Your task to perform on an android device: Open a new Chrome private window Image 0: 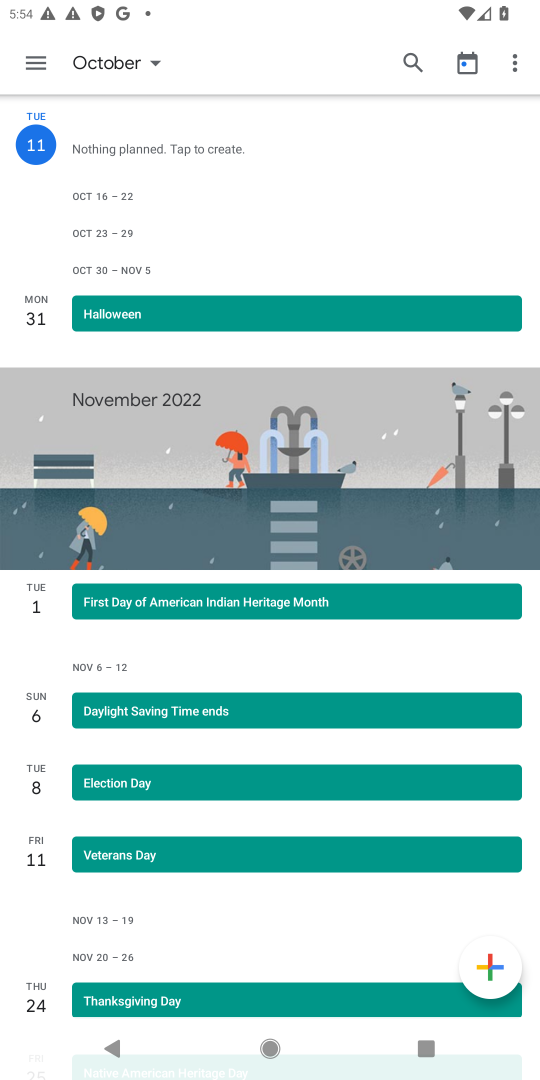
Step 0: press home button
Your task to perform on an android device: Open a new Chrome private window Image 1: 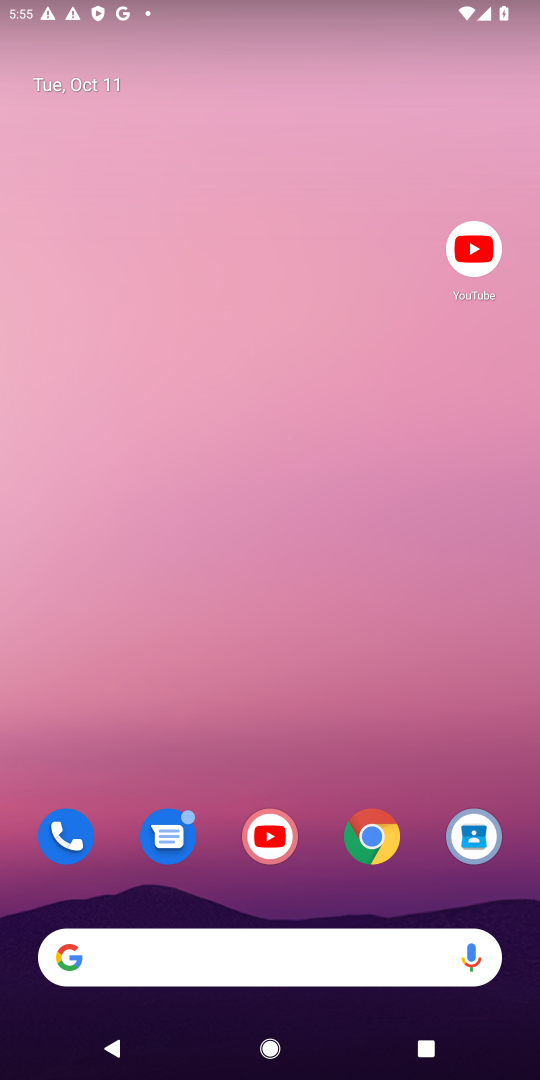
Step 1: click (378, 844)
Your task to perform on an android device: Open a new Chrome private window Image 2: 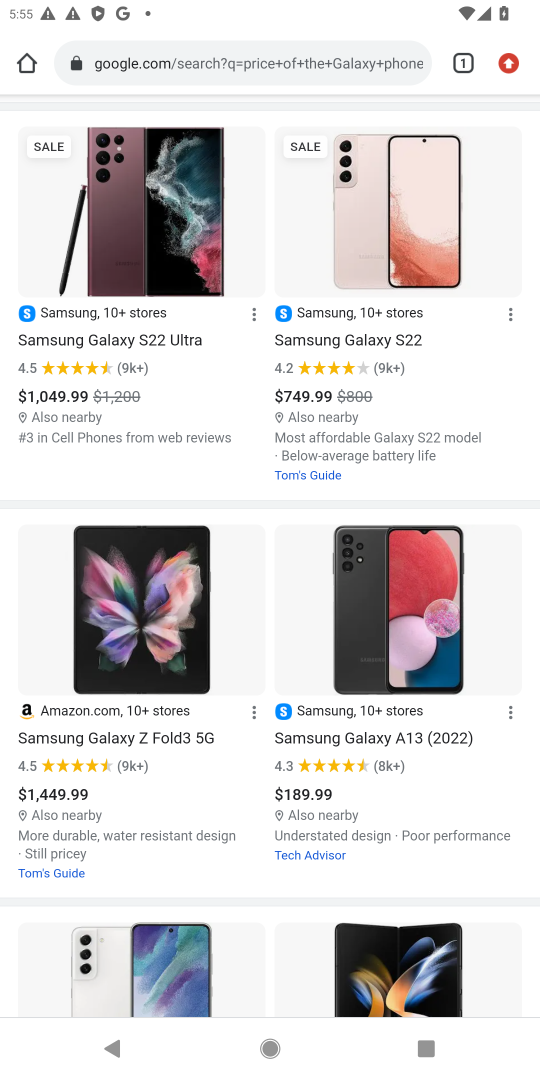
Step 2: click (472, 58)
Your task to perform on an android device: Open a new Chrome private window Image 3: 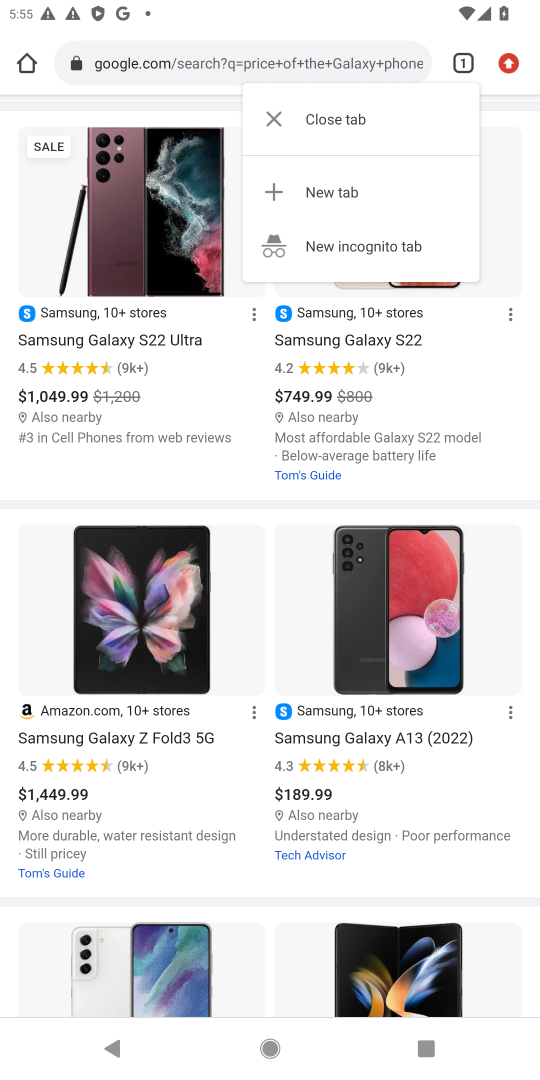
Step 3: click (510, 68)
Your task to perform on an android device: Open a new Chrome private window Image 4: 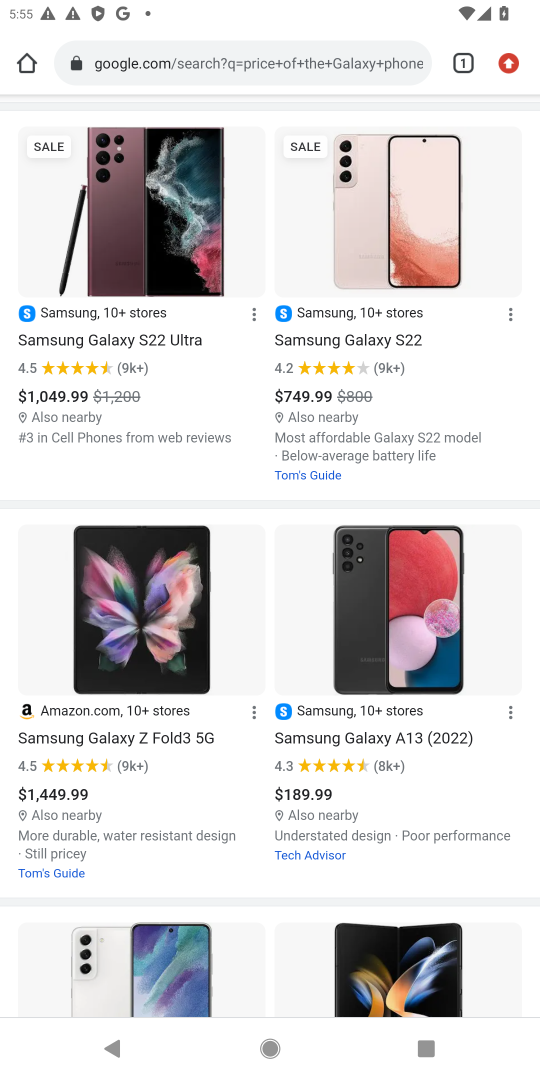
Step 4: click (510, 68)
Your task to perform on an android device: Open a new Chrome private window Image 5: 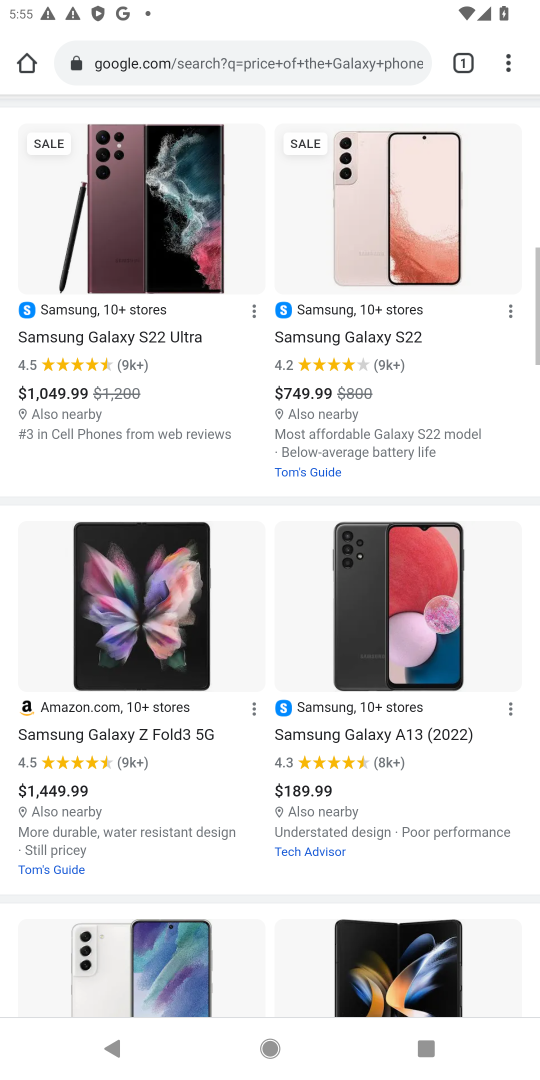
Step 5: task complete